Your task to perform on an android device: check the backup settings in the google photos Image 0: 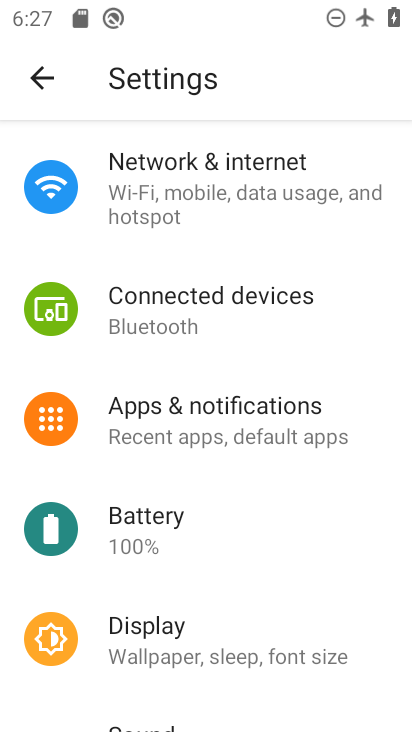
Step 0: press home button
Your task to perform on an android device: check the backup settings in the google photos Image 1: 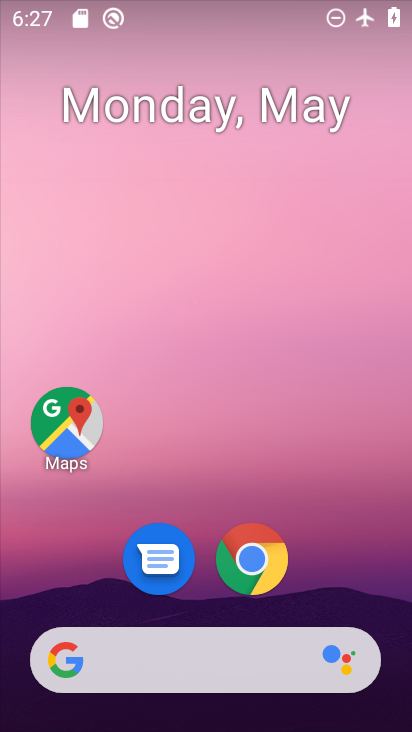
Step 1: drag from (313, 506) to (175, 51)
Your task to perform on an android device: check the backup settings in the google photos Image 2: 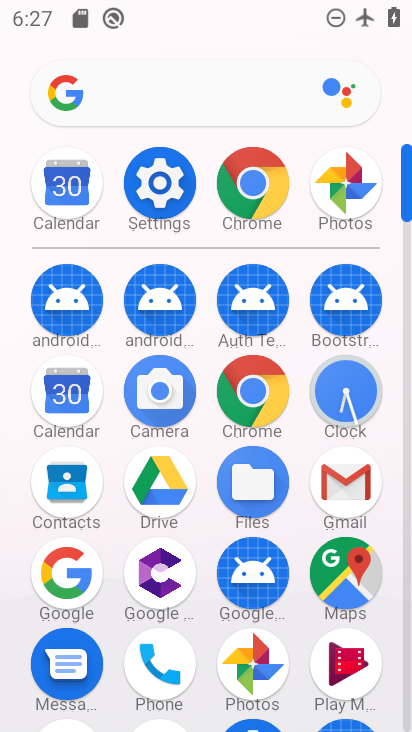
Step 2: click (255, 647)
Your task to perform on an android device: check the backup settings in the google photos Image 3: 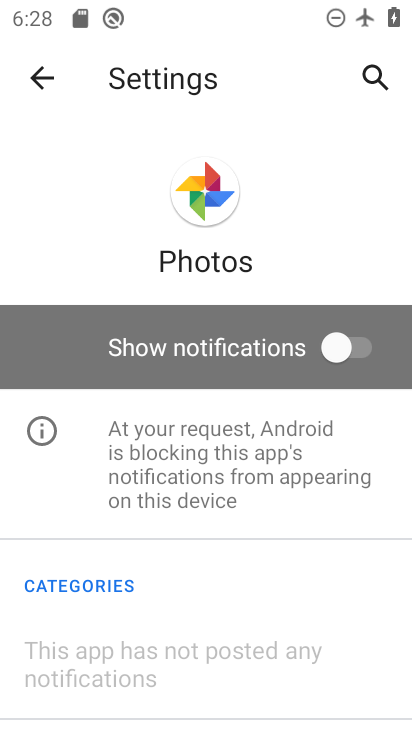
Step 3: click (37, 84)
Your task to perform on an android device: check the backup settings in the google photos Image 4: 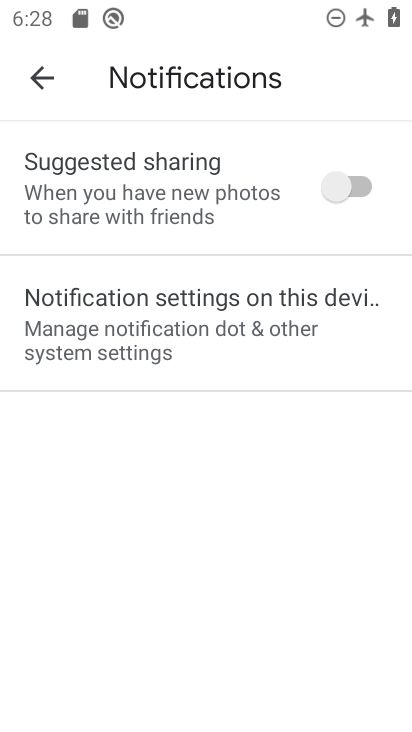
Step 4: click (41, 84)
Your task to perform on an android device: check the backup settings in the google photos Image 5: 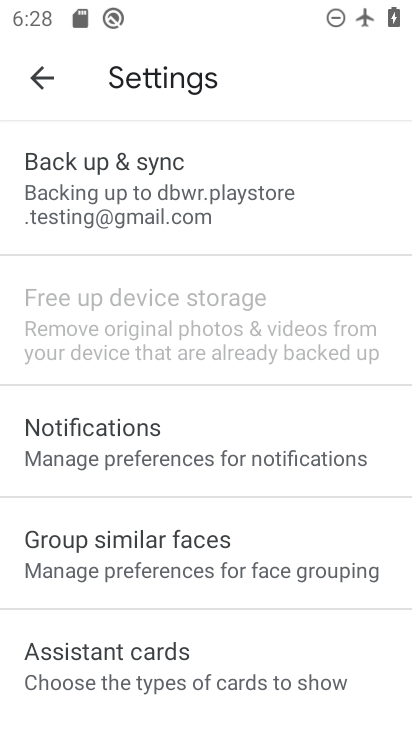
Step 5: click (140, 179)
Your task to perform on an android device: check the backup settings in the google photos Image 6: 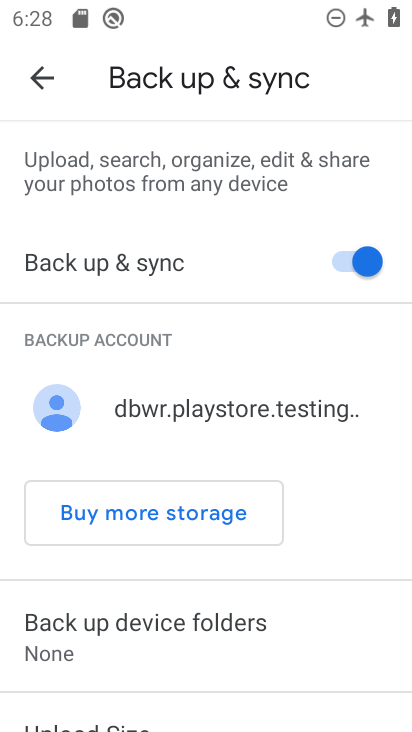
Step 6: task complete